Your task to perform on an android device: What's the weather today? Image 0: 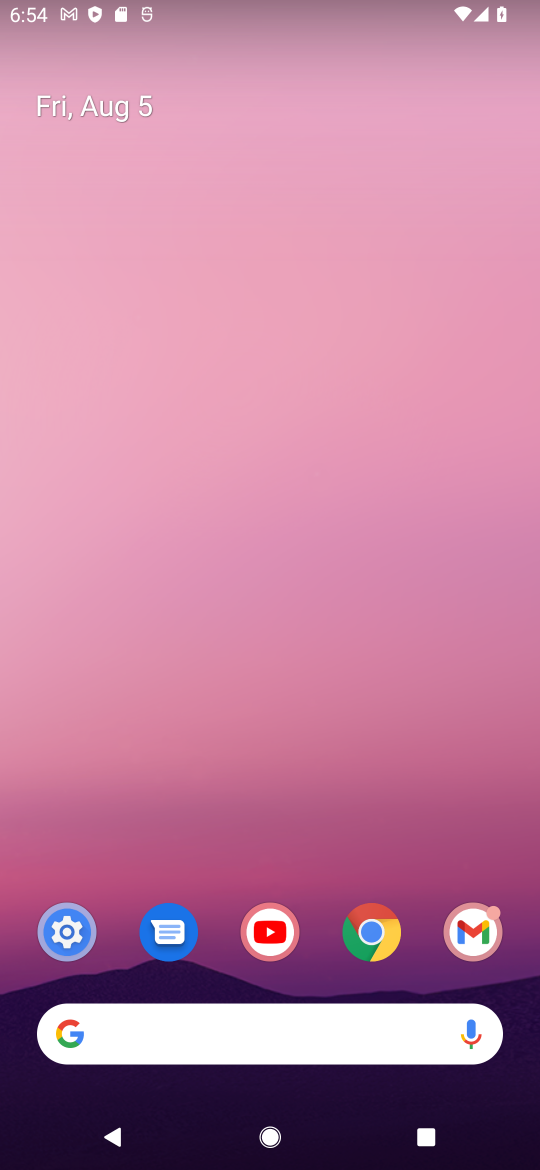
Step 0: drag from (420, 832) to (433, 137)
Your task to perform on an android device: What's the weather today? Image 1: 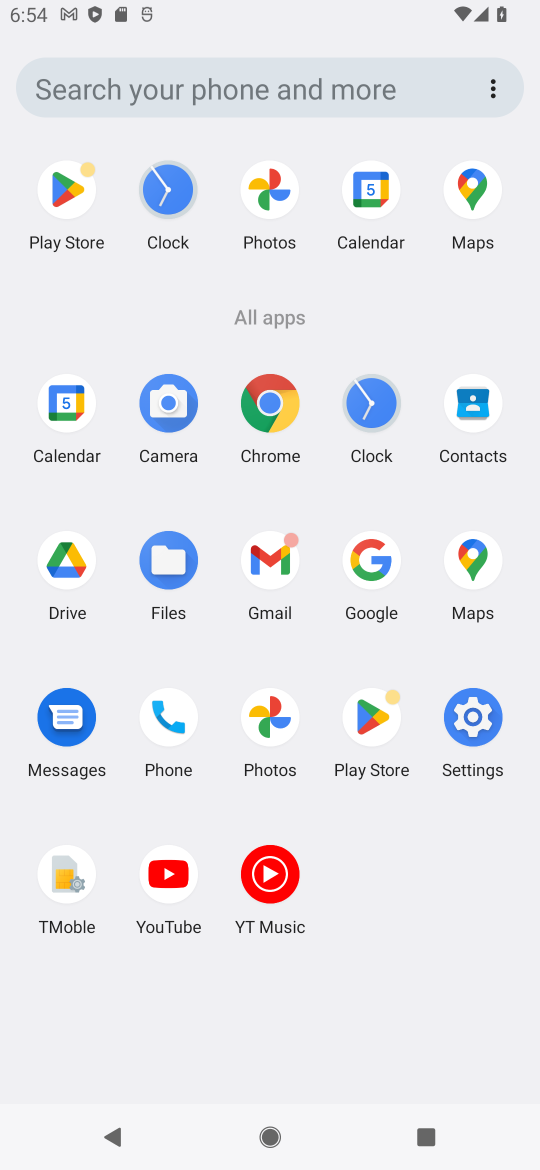
Step 1: click (271, 400)
Your task to perform on an android device: What's the weather today? Image 2: 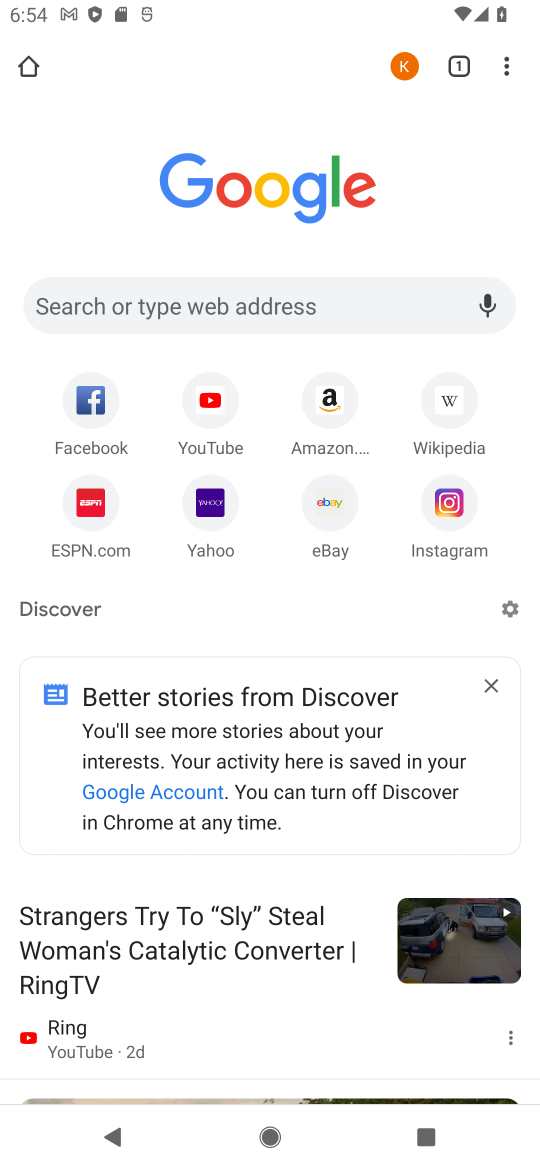
Step 2: click (257, 291)
Your task to perform on an android device: What's the weather today? Image 3: 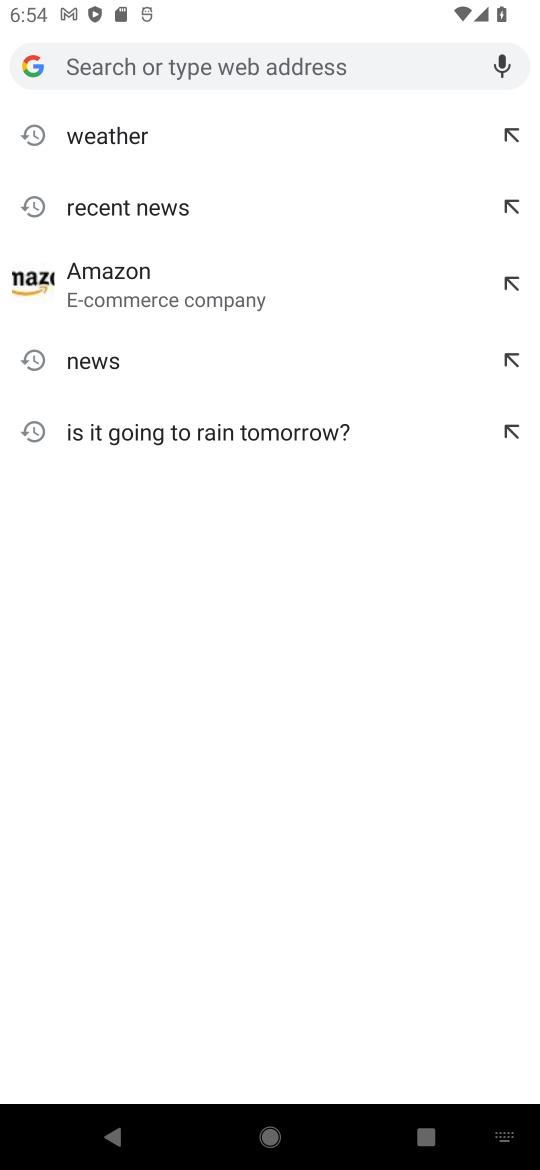
Step 3: click (135, 128)
Your task to perform on an android device: What's the weather today? Image 4: 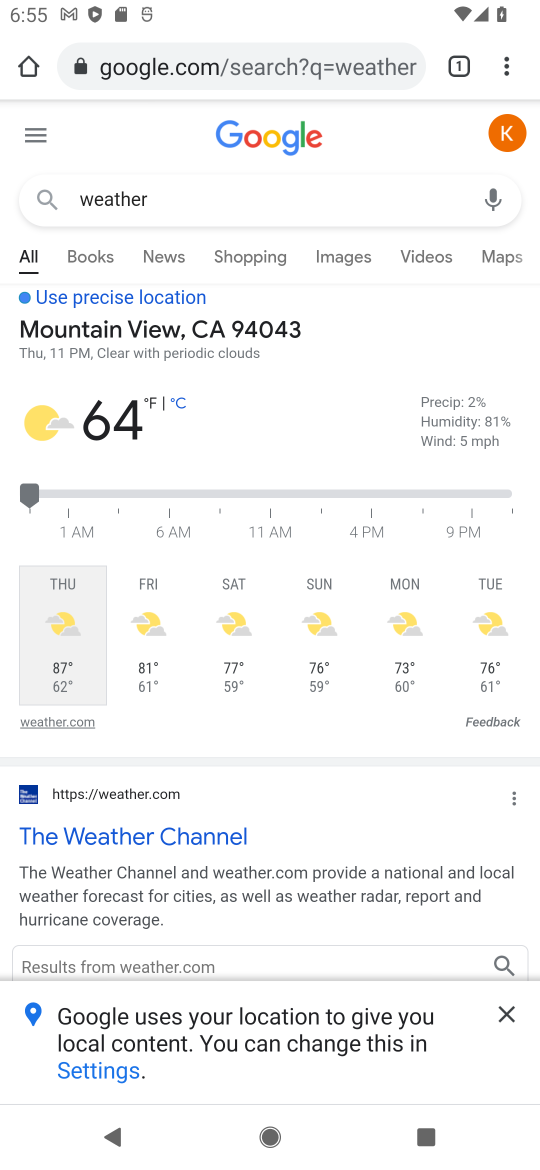
Step 4: task complete